Your task to perform on an android device: change timer sound Image 0: 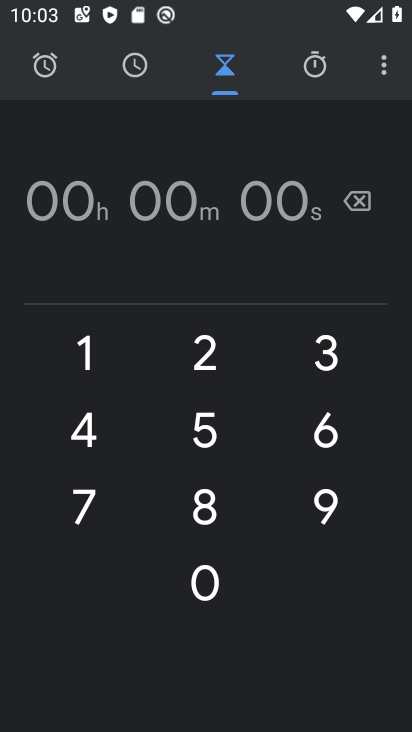
Step 0: click (380, 75)
Your task to perform on an android device: change timer sound Image 1: 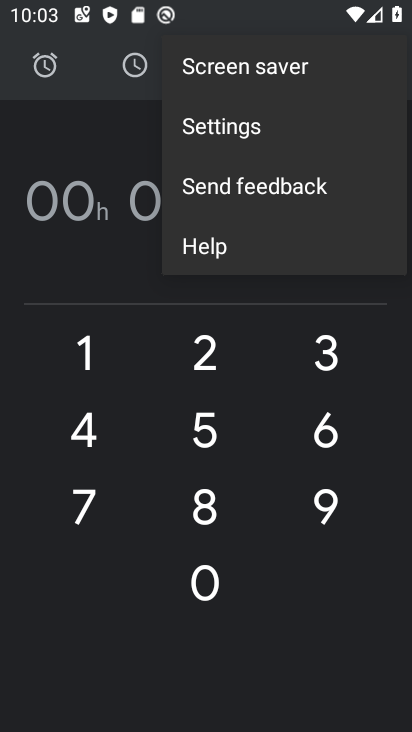
Step 1: click (272, 134)
Your task to perform on an android device: change timer sound Image 2: 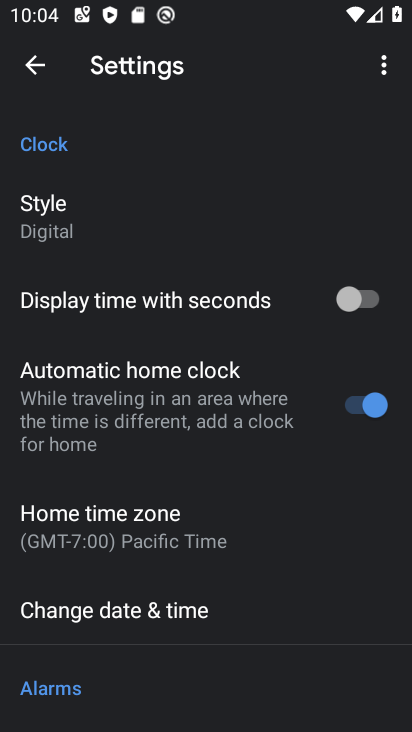
Step 2: drag from (288, 694) to (318, 184)
Your task to perform on an android device: change timer sound Image 3: 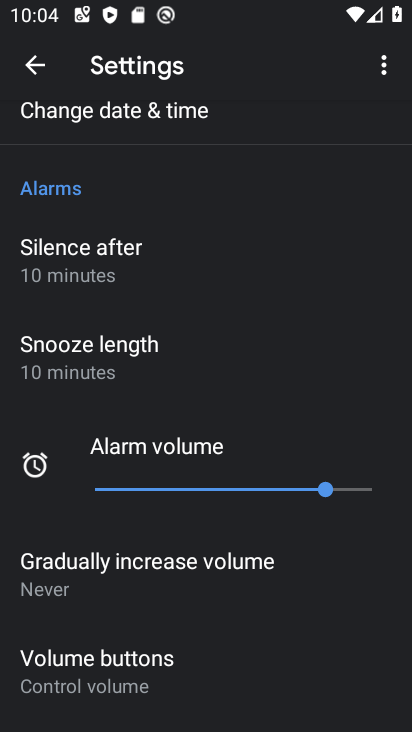
Step 3: drag from (195, 638) to (201, 162)
Your task to perform on an android device: change timer sound Image 4: 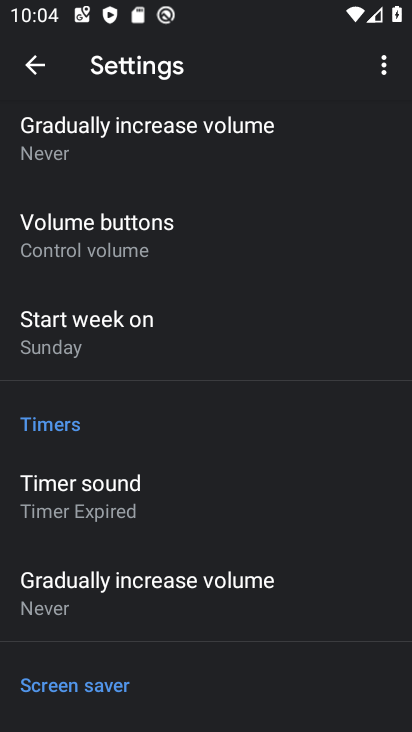
Step 4: click (121, 487)
Your task to perform on an android device: change timer sound Image 5: 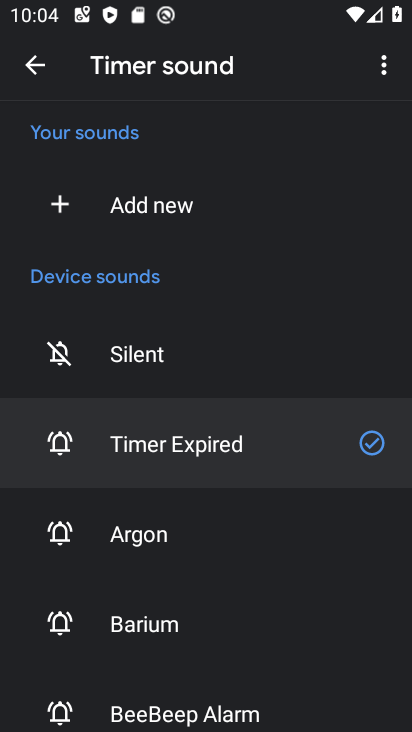
Step 5: click (153, 538)
Your task to perform on an android device: change timer sound Image 6: 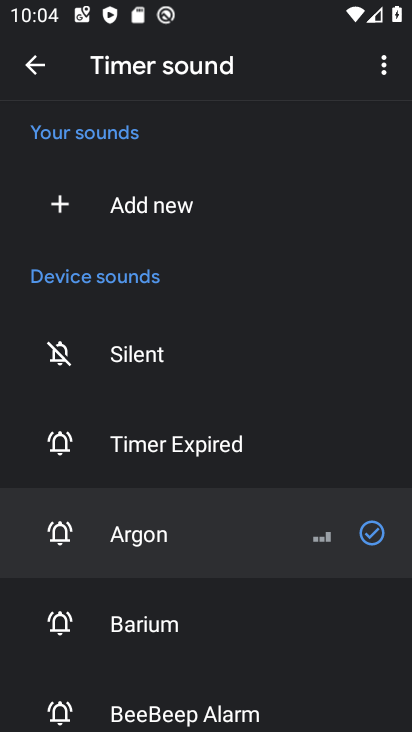
Step 6: task complete